Your task to perform on an android device: turn on showing notifications on the lock screen Image 0: 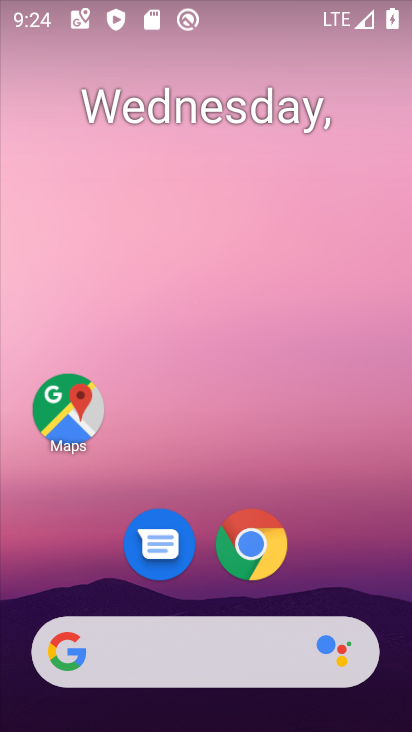
Step 0: drag from (210, 585) to (231, 178)
Your task to perform on an android device: turn on showing notifications on the lock screen Image 1: 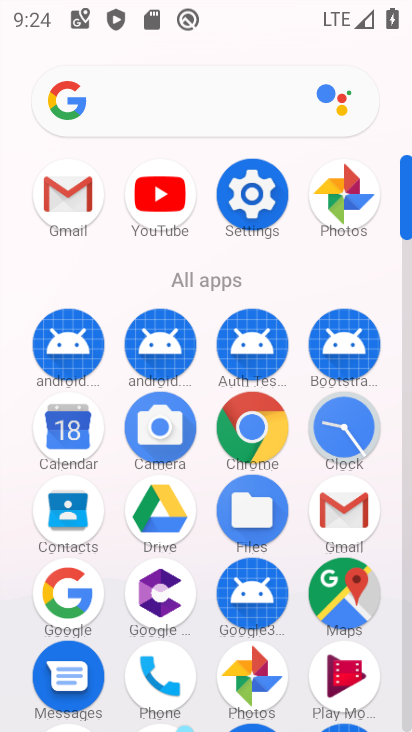
Step 1: click (263, 185)
Your task to perform on an android device: turn on showing notifications on the lock screen Image 2: 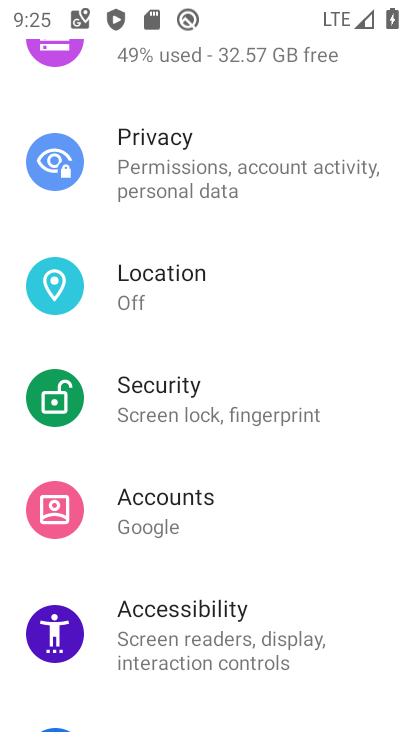
Step 2: drag from (120, 229) to (151, 668)
Your task to perform on an android device: turn on showing notifications on the lock screen Image 3: 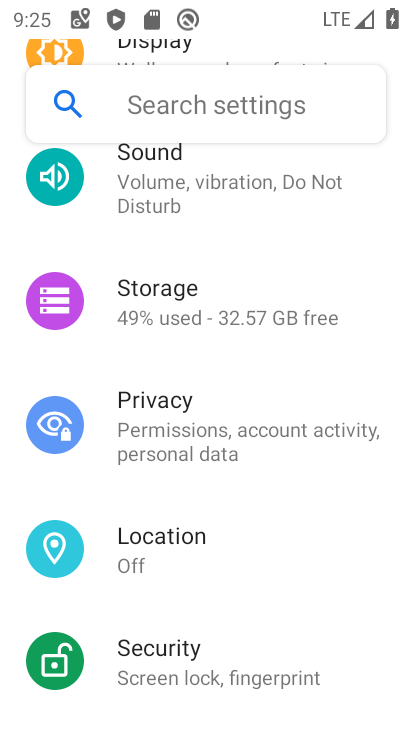
Step 3: drag from (212, 201) to (279, 615)
Your task to perform on an android device: turn on showing notifications on the lock screen Image 4: 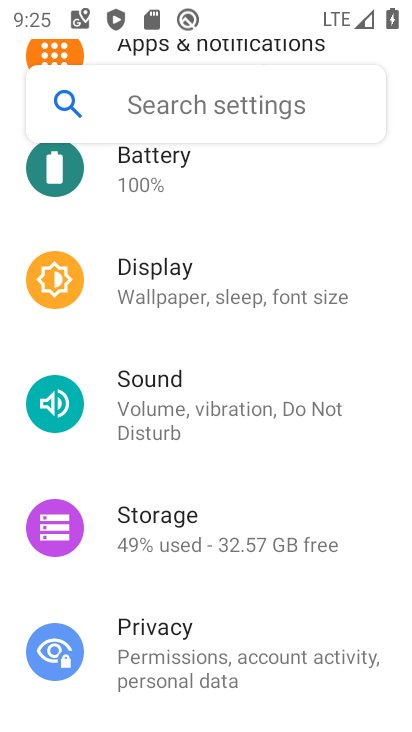
Step 4: drag from (191, 232) to (247, 627)
Your task to perform on an android device: turn on showing notifications on the lock screen Image 5: 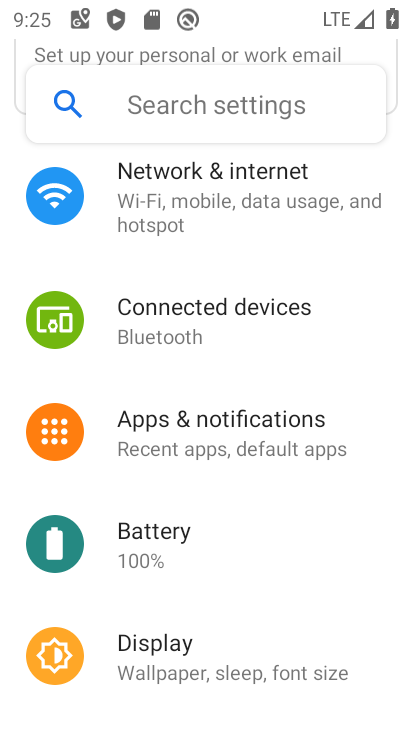
Step 5: click (234, 455)
Your task to perform on an android device: turn on showing notifications on the lock screen Image 6: 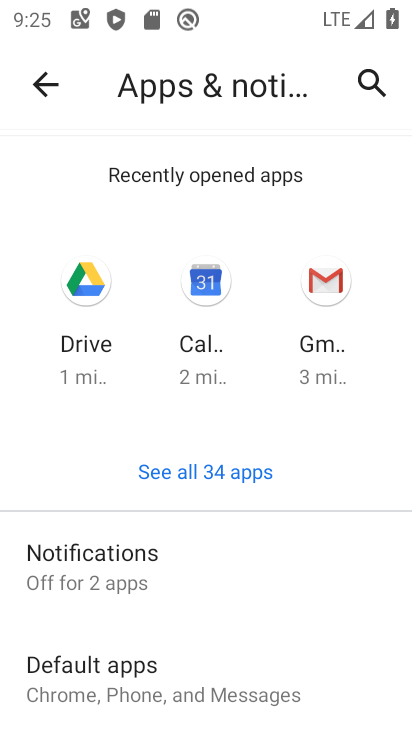
Step 6: click (123, 560)
Your task to perform on an android device: turn on showing notifications on the lock screen Image 7: 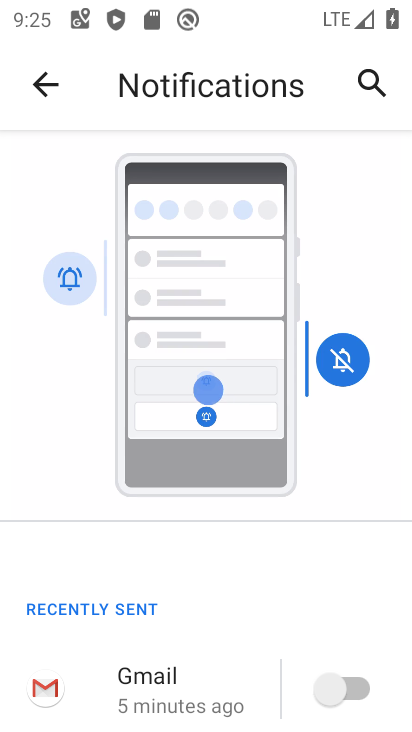
Step 7: drag from (161, 664) to (322, 21)
Your task to perform on an android device: turn on showing notifications on the lock screen Image 8: 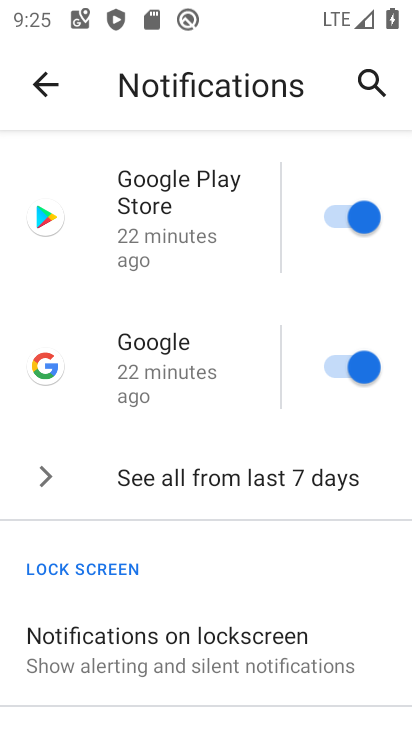
Step 8: click (243, 644)
Your task to perform on an android device: turn on showing notifications on the lock screen Image 9: 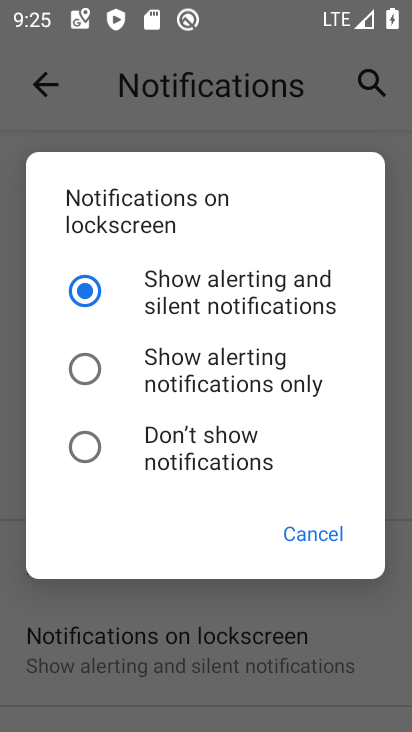
Step 9: task complete